Your task to perform on an android device: open chrome and create a bookmark for the current page Image 0: 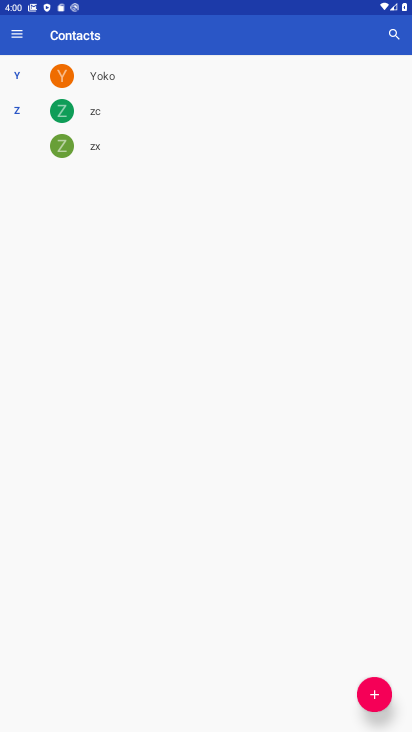
Step 0: press home button
Your task to perform on an android device: open chrome and create a bookmark for the current page Image 1: 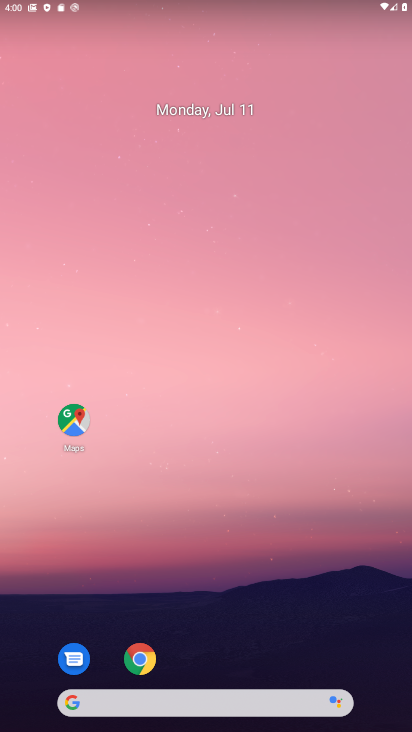
Step 1: click (143, 671)
Your task to perform on an android device: open chrome and create a bookmark for the current page Image 2: 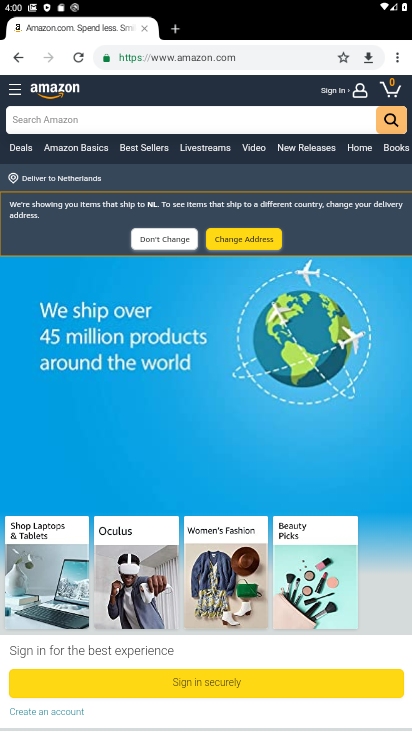
Step 2: click (346, 57)
Your task to perform on an android device: open chrome and create a bookmark for the current page Image 3: 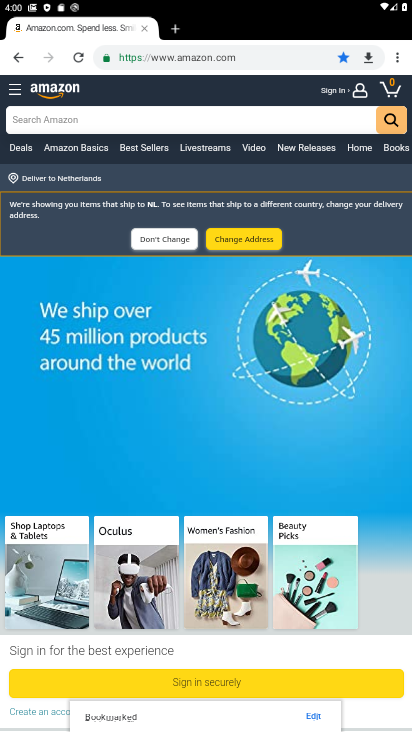
Step 3: task complete